Your task to perform on an android device: Find coffee shops on Maps Image 0: 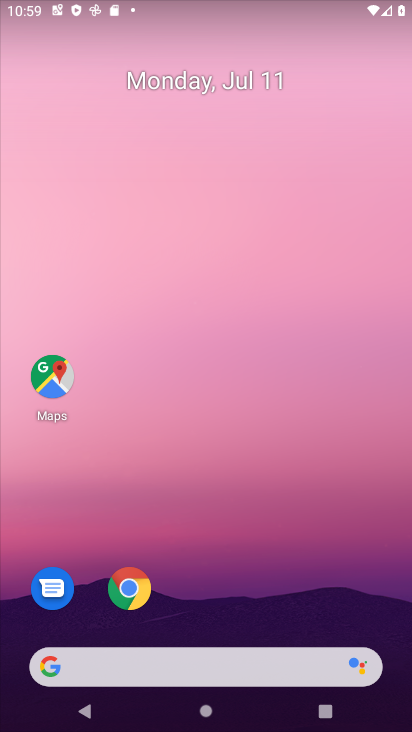
Step 0: click (43, 377)
Your task to perform on an android device: Find coffee shops on Maps Image 1: 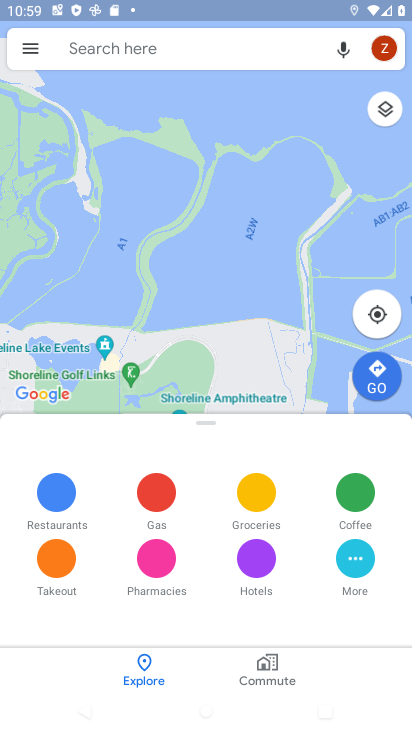
Step 1: click (201, 55)
Your task to perform on an android device: Find coffee shops on Maps Image 2: 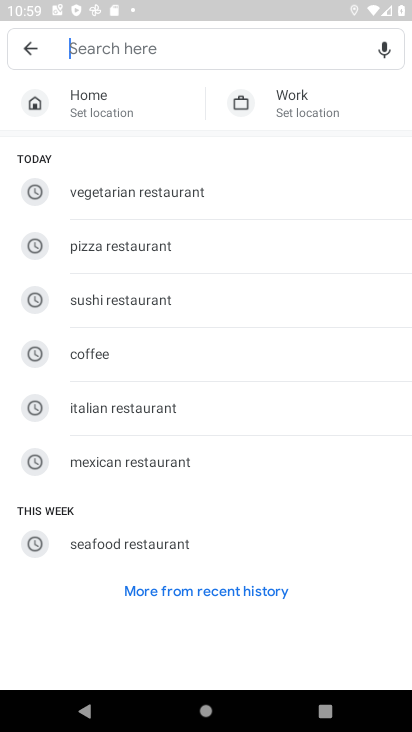
Step 2: click (203, 49)
Your task to perform on an android device: Find coffee shops on Maps Image 3: 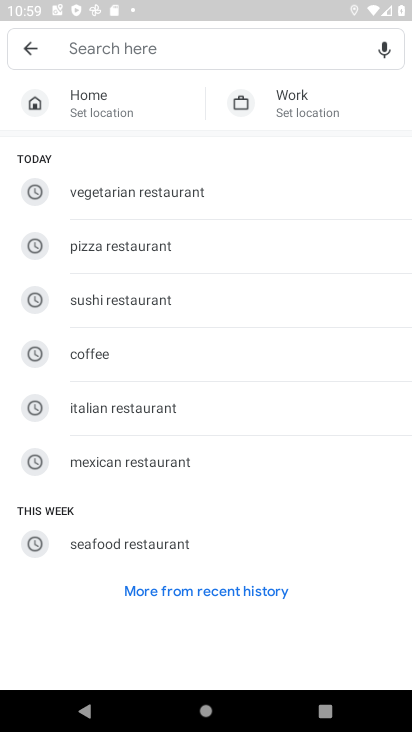
Step 3: click (149, 338)
Your task to perform on an android device: Find coffee shops on Maps Image 4: 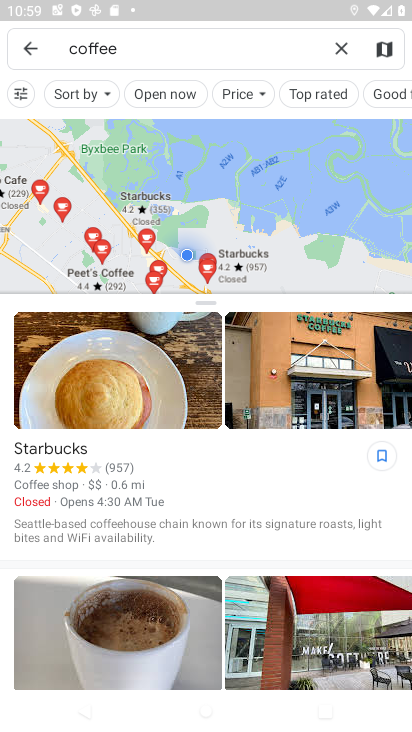
Step 4: task complete